Your task to perform on an android device: toggle airplane mode Image 0: 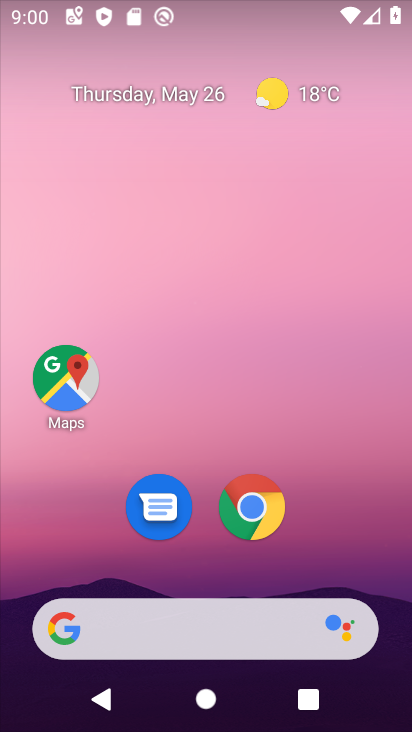
Step 0: drag from (267, 661) to (200, 67)
Your task to perform on an android device: toggle airplane mode Image 1: 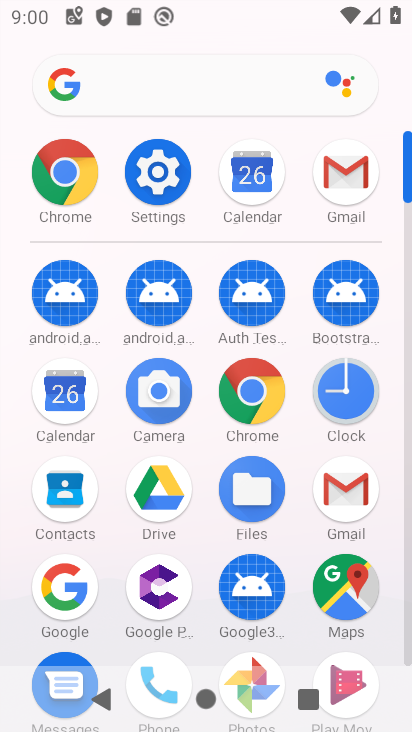
Step 1: click (172, 178)
Your task to perform on an android device: toggle airplane mode Image 2: 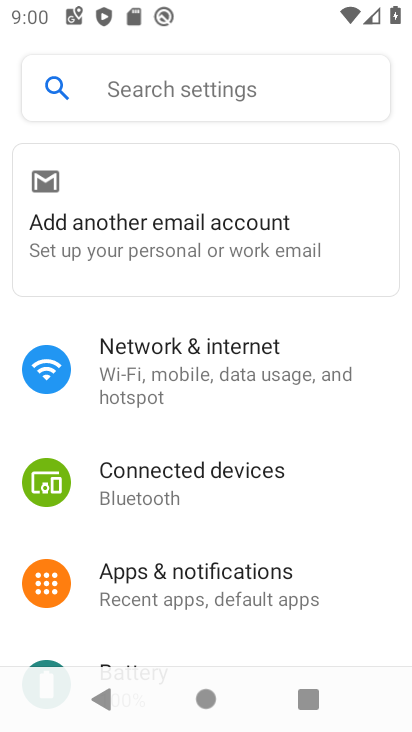
Step 2: click (187, 355)
Your task to perform on an android device: toggle airplane mode Image 3: 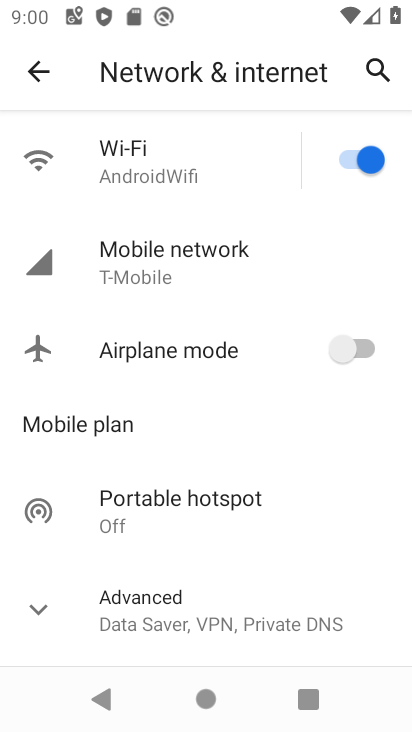
Step 3: click (346, 345)
Your task to perform on an android device: toggle airplane mode Image 4: 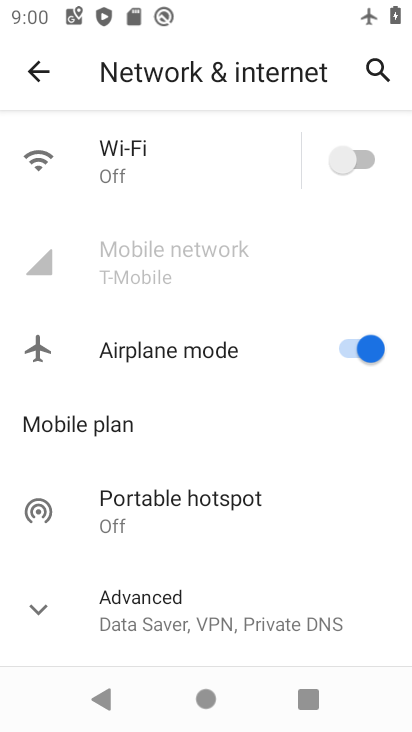
Step 4: click (360, 327)
Your task to perform on an android device: toggle airplane mode Image 5: 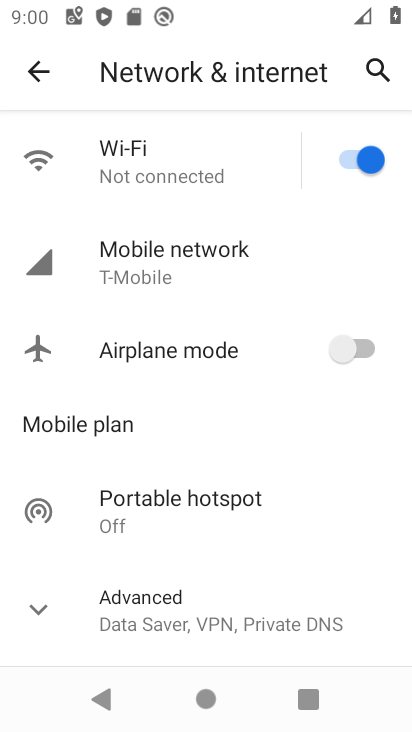
Step 5: task complete